Your task to perform on an android device: change keyboard looks Image 0: 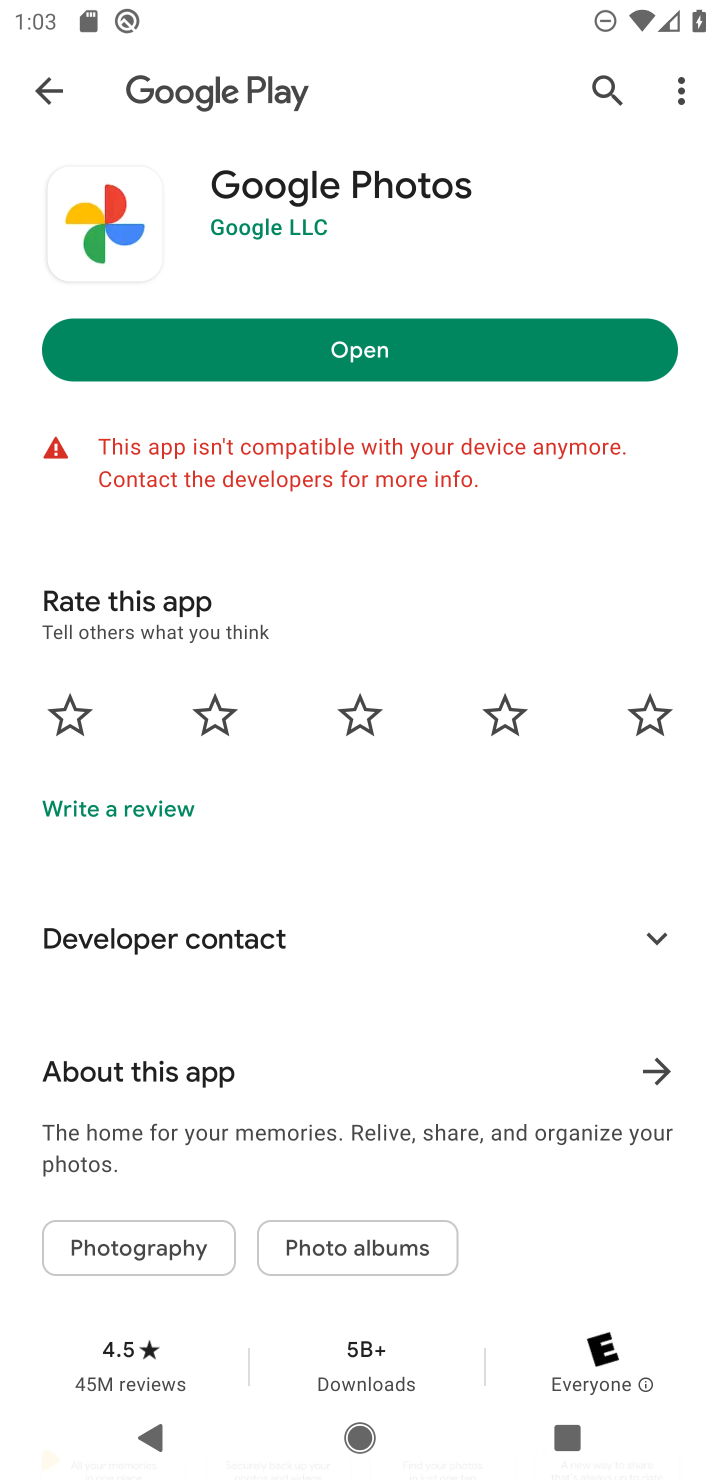
Step 0: press home button
Your task to perform on an android device: change keyboard looks Image 1: 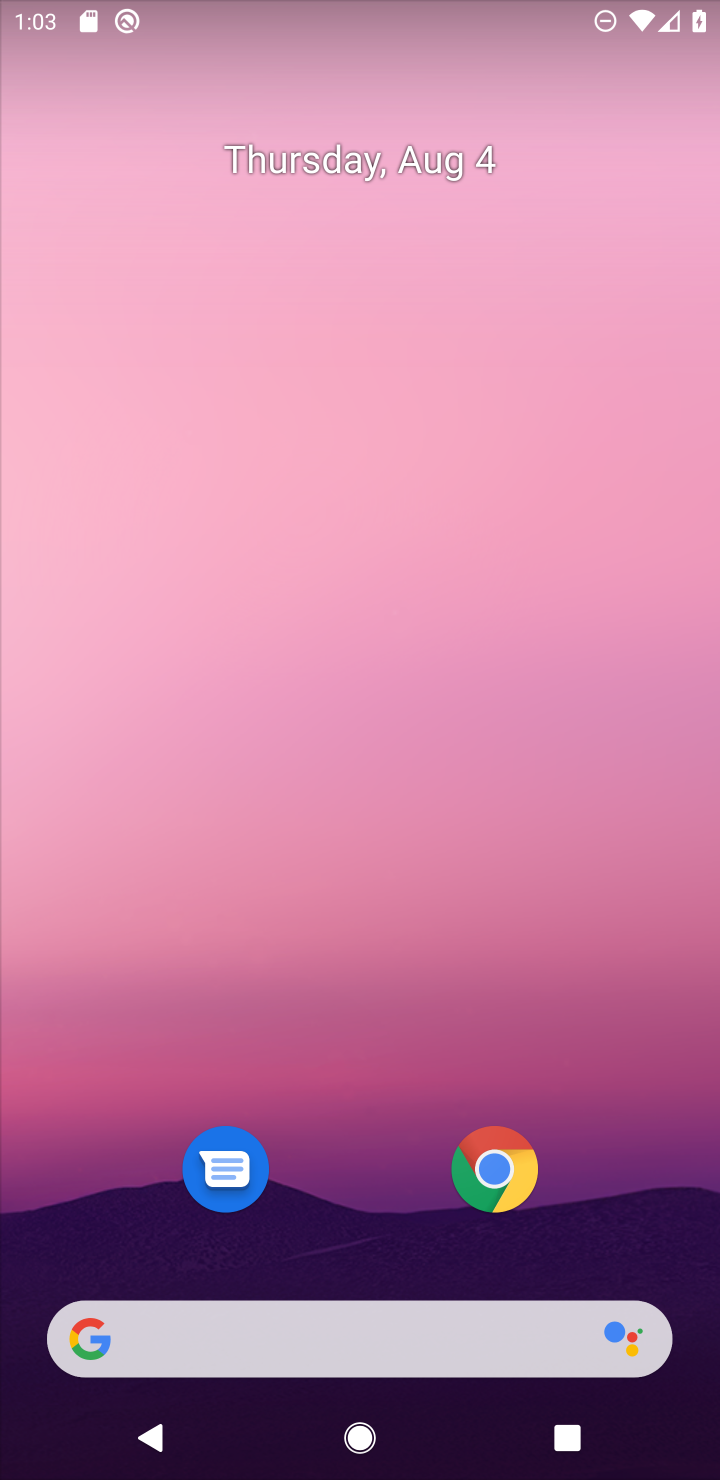
Step 1: drag from (374, 1188) to (345, 56)
Your task to perform on an android device: change keyboard looks Image 2: 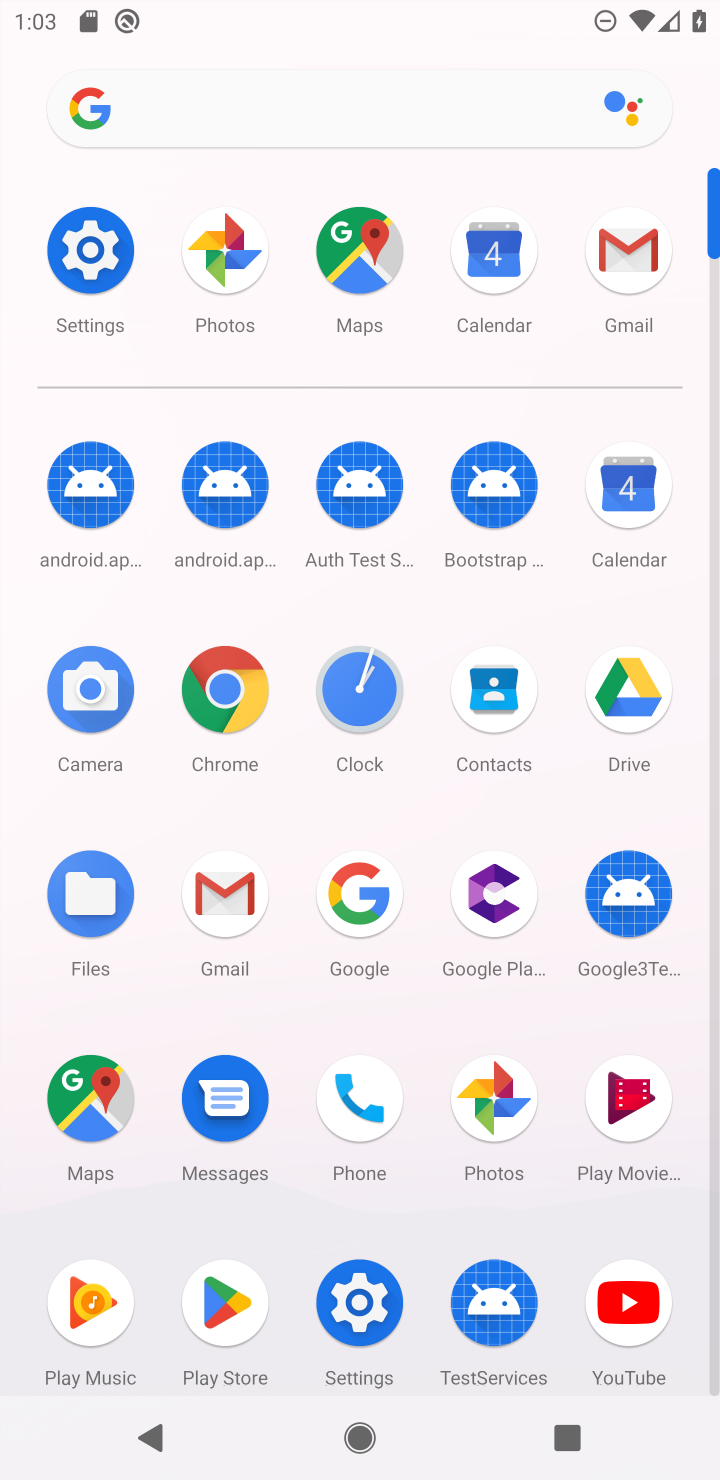
Step 2: click (94, 263)
Your task to perform on an android device: change keyboard looks Image 3: 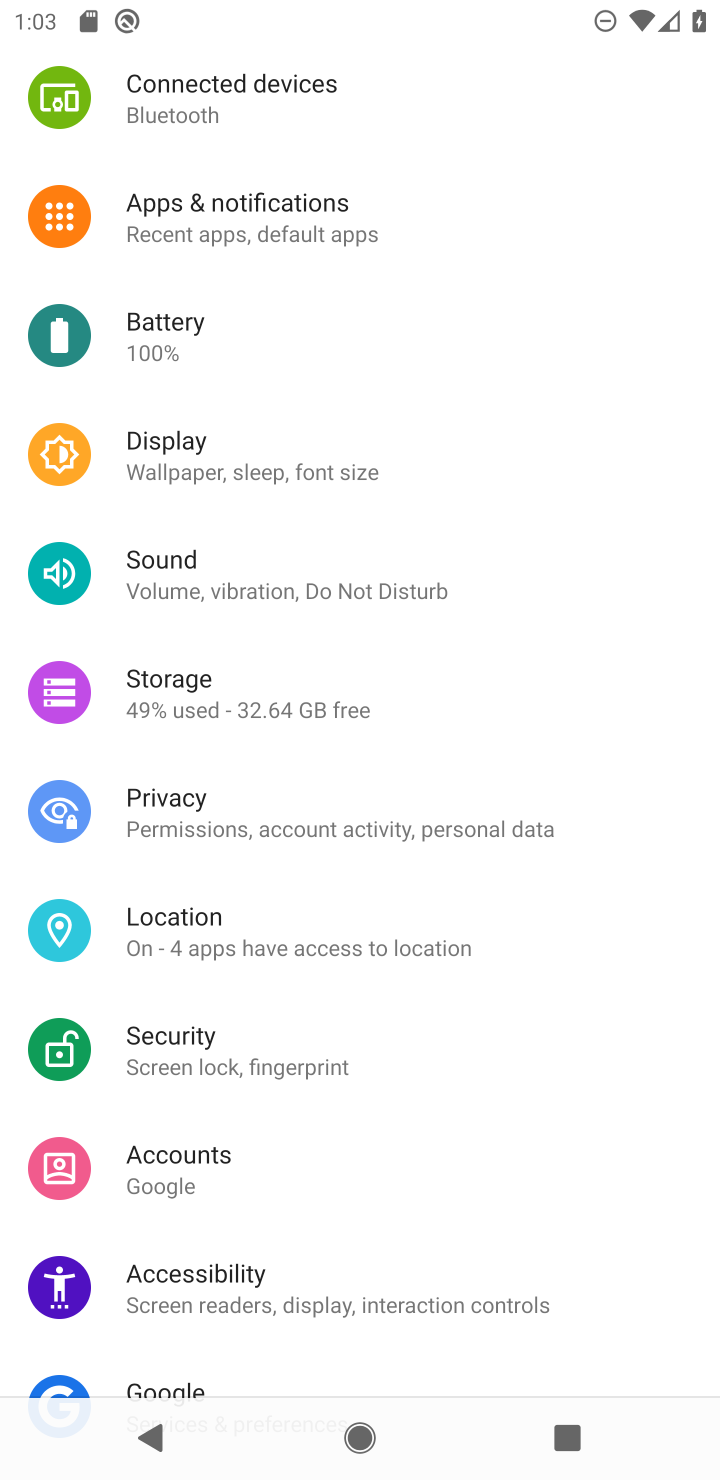
Step 3: drag from (623, 1191) to (654, 248)
Your task to perform on an android device: change keyboard looks Image 4: 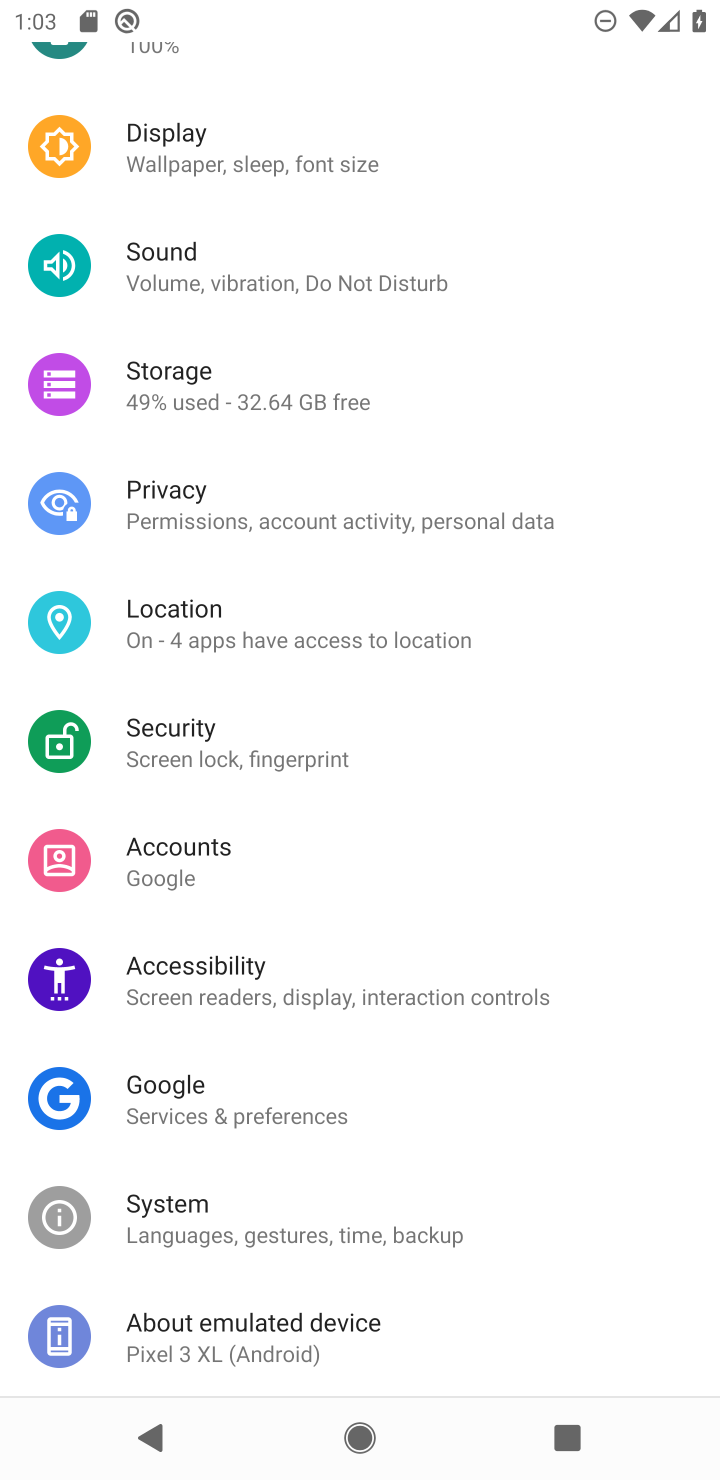
Step 4: click (131, 1245)
Your task to perform on an android device: change keyboard looks Image 5: 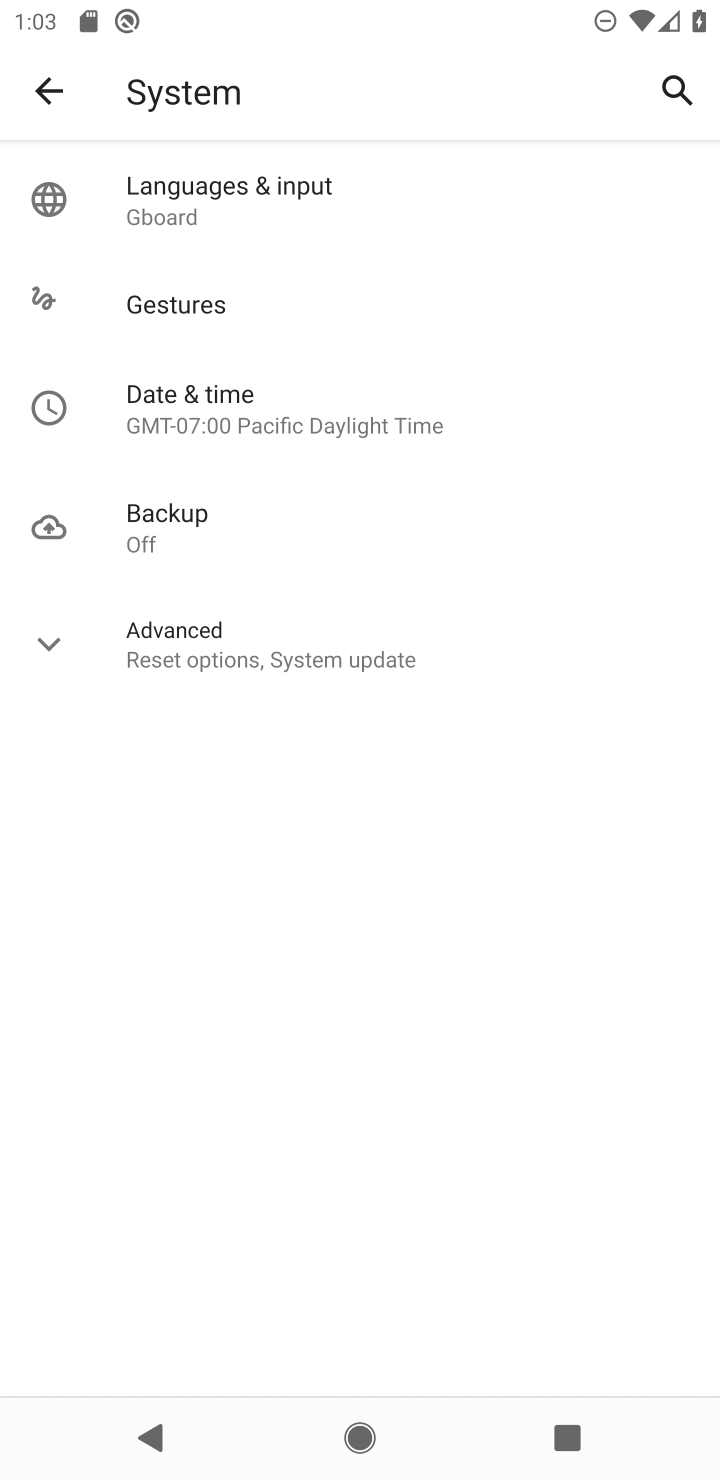
Step 5: click (158, 222)
Your task to perform on an android device: change keyboard looks Image 6: 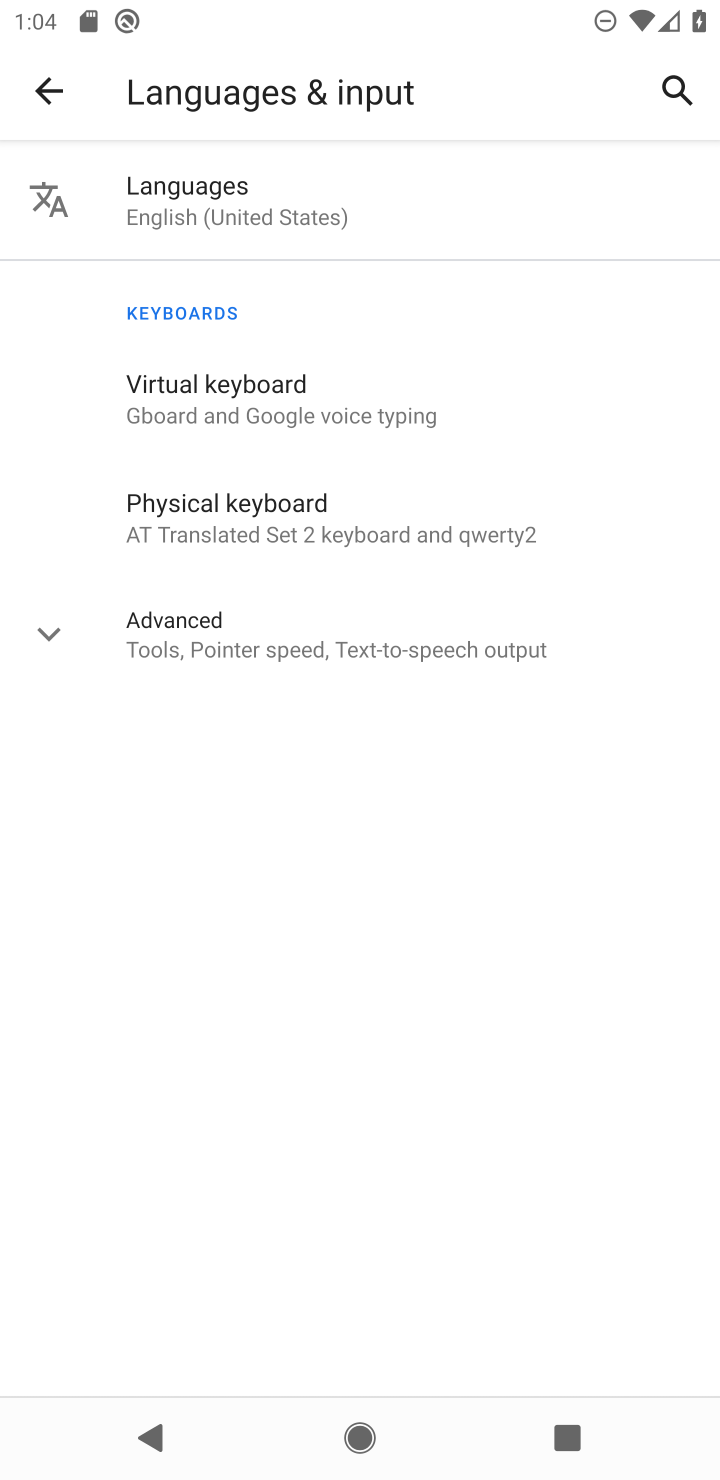
Step 6: click (247, 420)
Your task to perform on an android device: change keyboard looks Image 7: 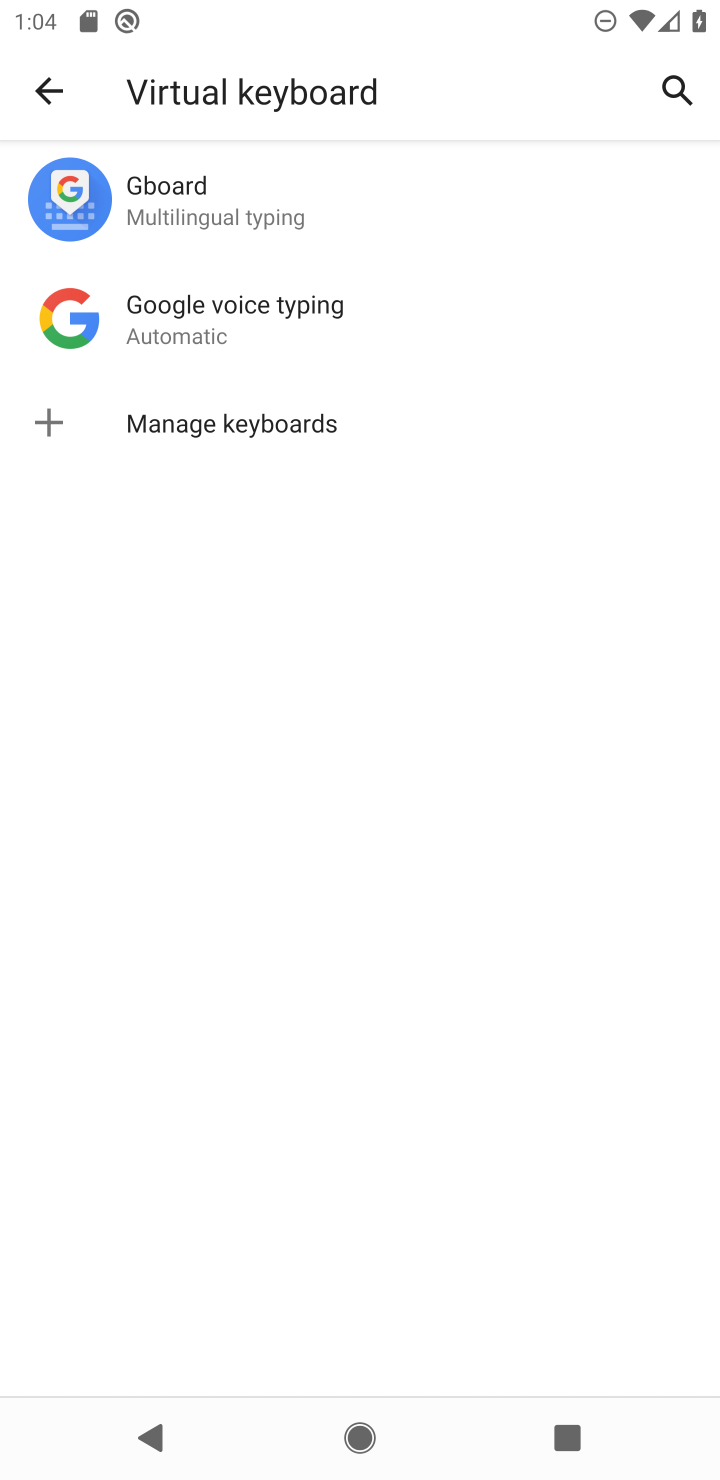
Step 7: click (156, 191)
Your task to perform on an android device: change keyboard looks Image 8: 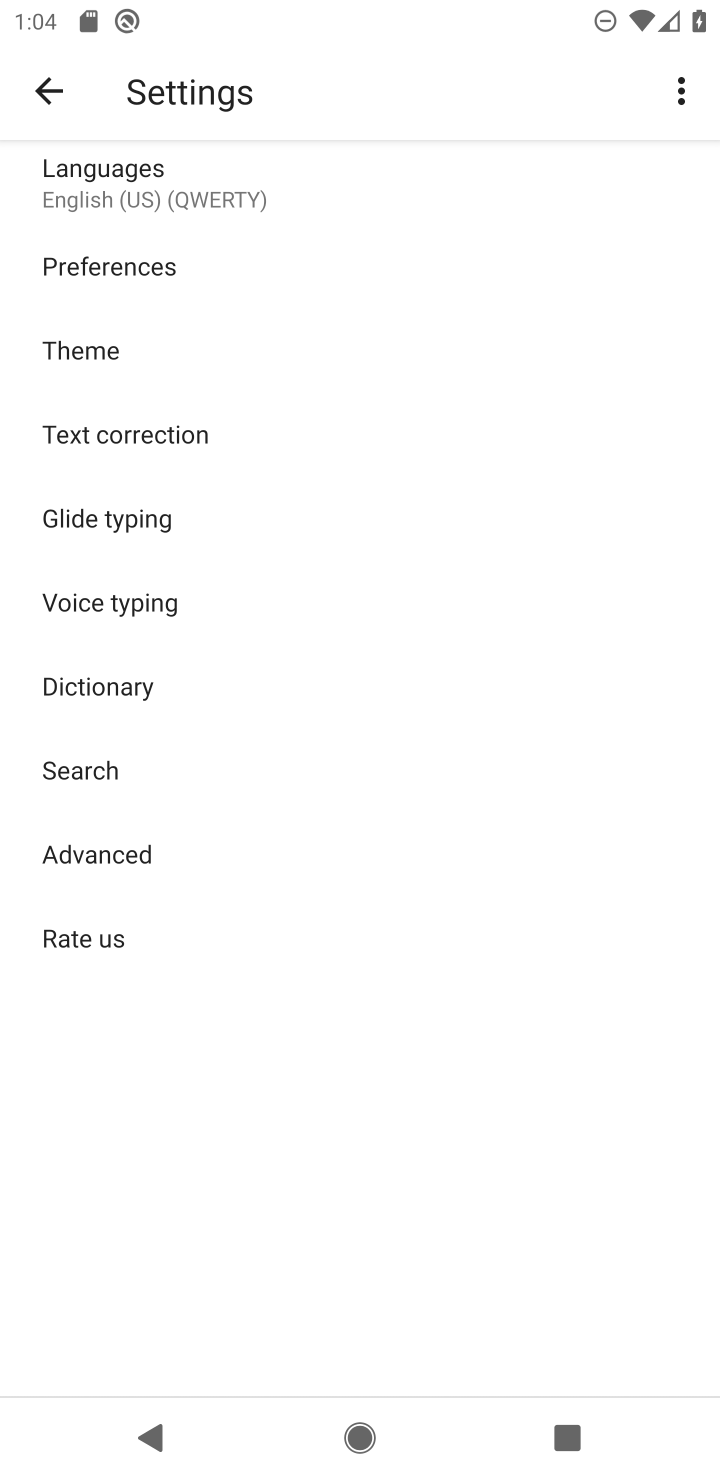
Step 8: click (106, 370)
Your task to perform on an android device: change keyboard looks Image 9: 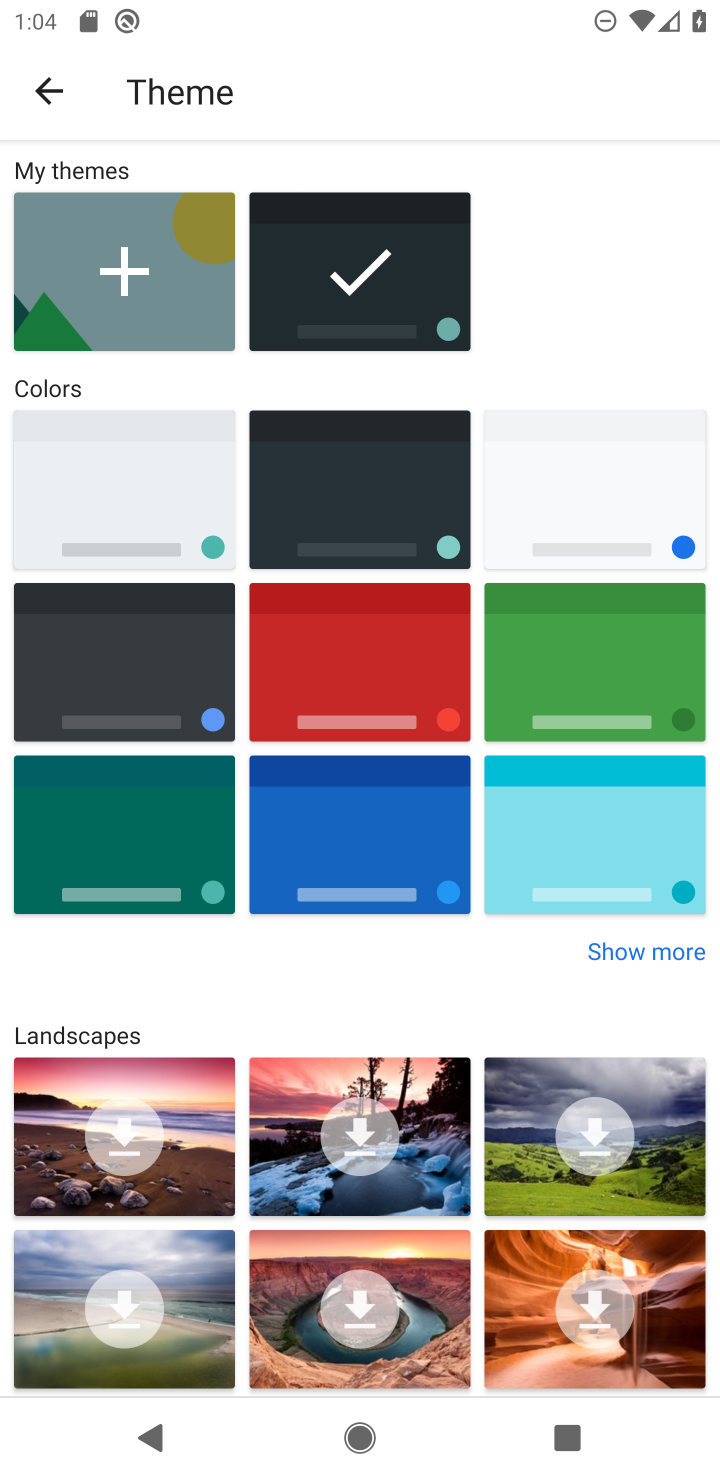
Step 9: click (113, 485)
Your task to perform on an android device: change keyboard looks Image 10: 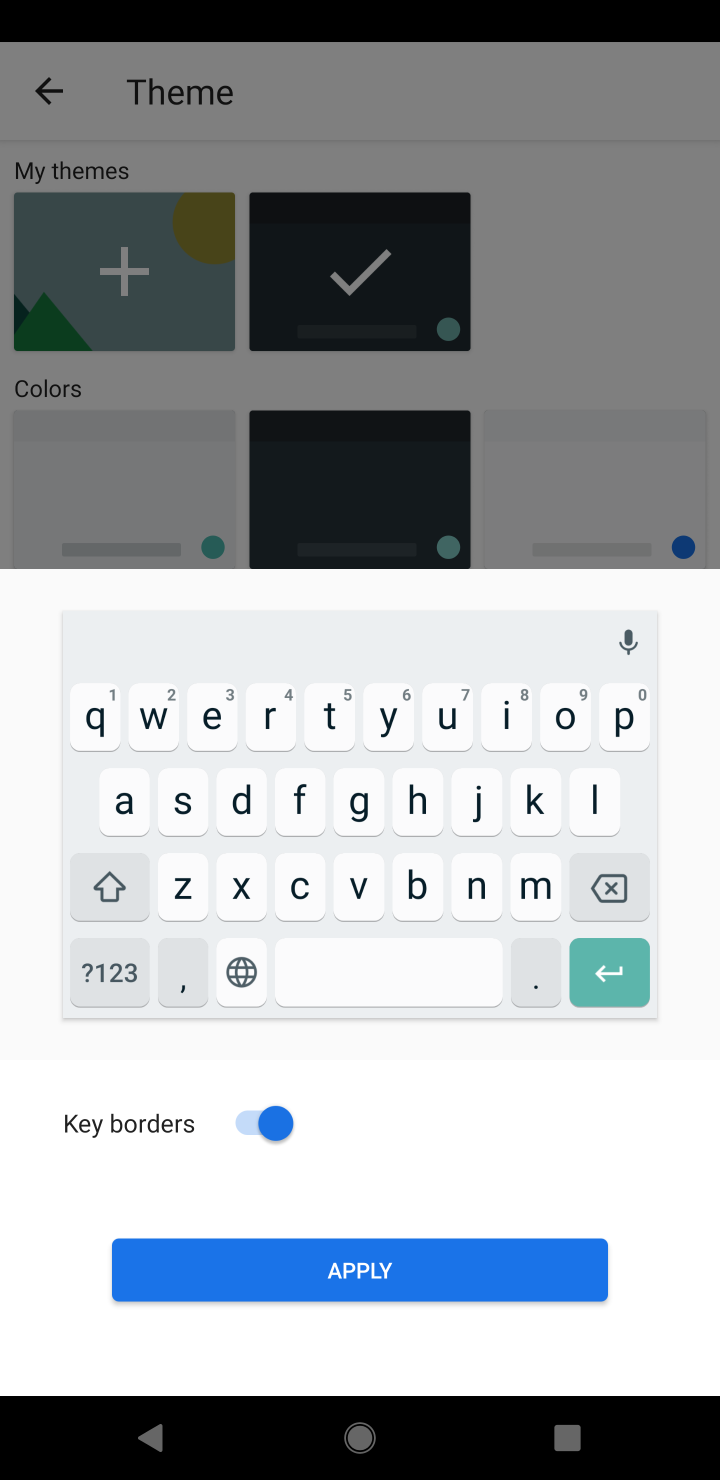
Step 10: click (294, 1287)
Your task to perform on an android device: change keyboard looks Image 11: 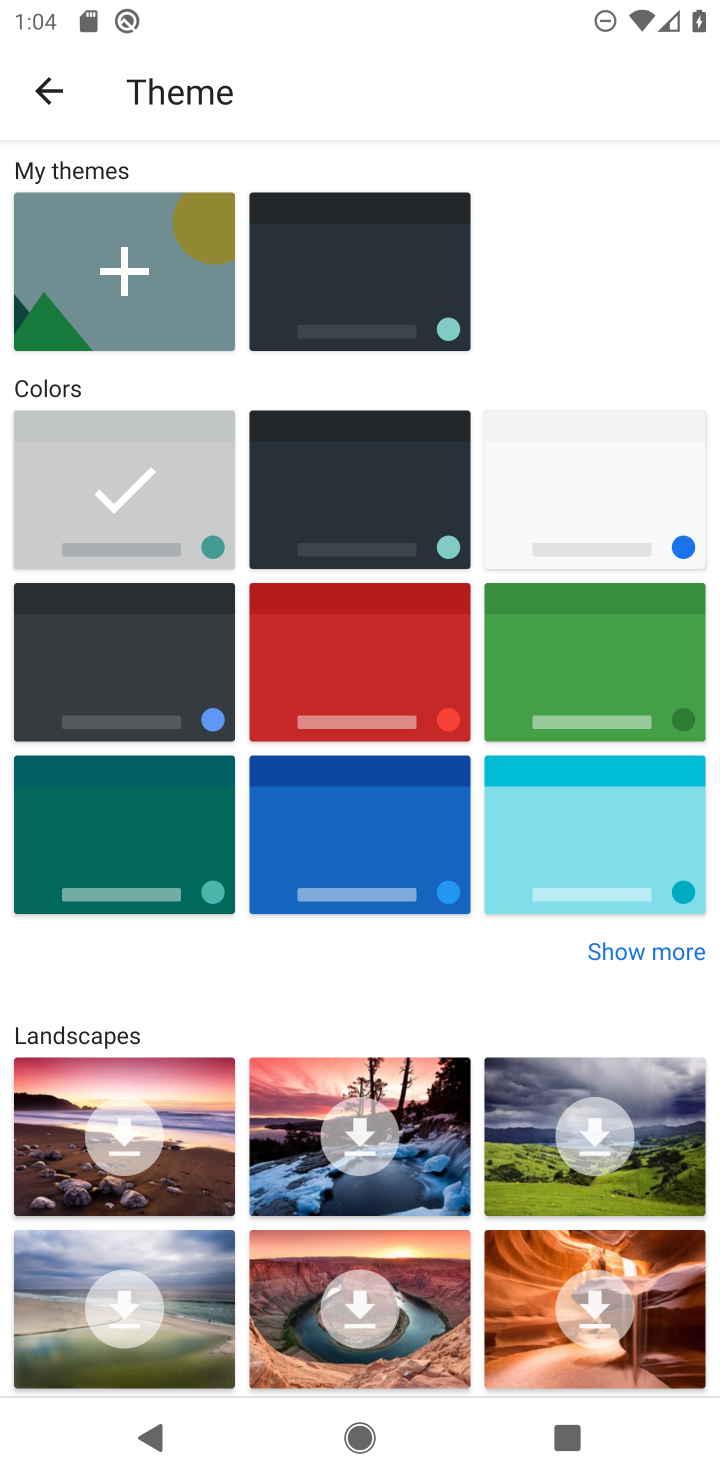
Step 11: task complete